Your task to perform on an android device: change your default location settings in chrome Image 0: 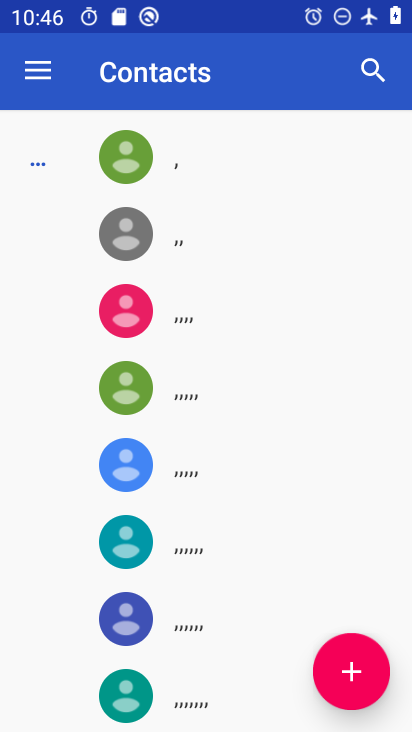
Step 0: press home button
Your task to perform on an android device: change your default location settings in chrome Image 1: 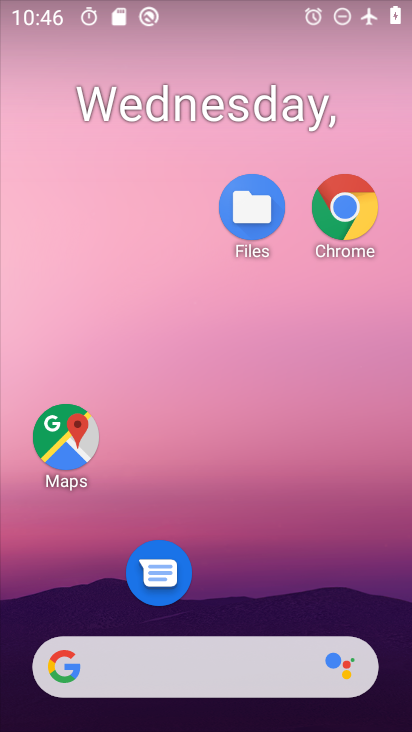
Step 1: drag from (231, 568) to (248, 232)
Your task to perform on an android device: change your default location settings in chrome Image 2: 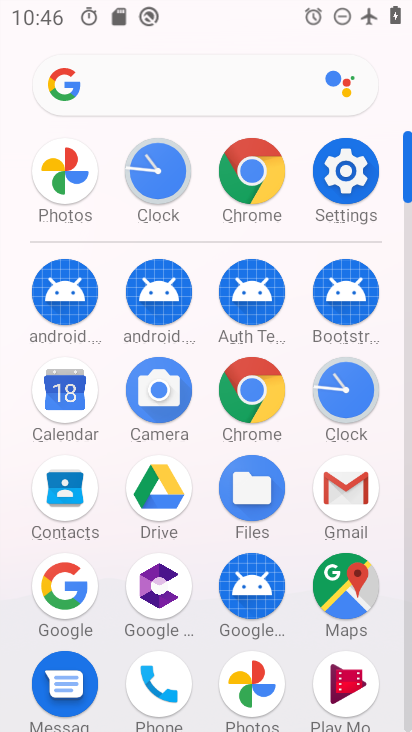
Step 2: click (259, 395)
Your task to perform on an android device: change your default location settings in chrome Image 3: 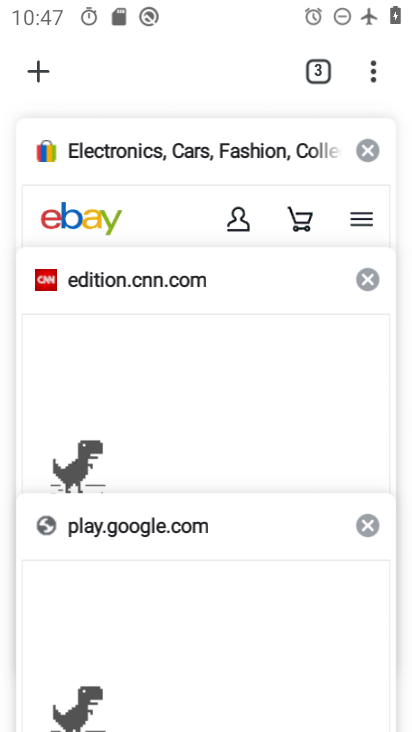
Step 3: click (377, 67)
Your task to perform on an android device: change your default location settings in chrome Image 4: 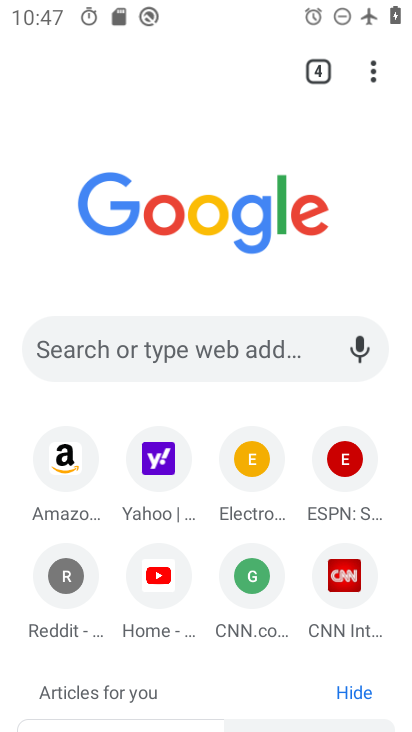
Step 4: click (376, 87)
Your task to perform on an android device: change your default location settings in chrome Image 5: 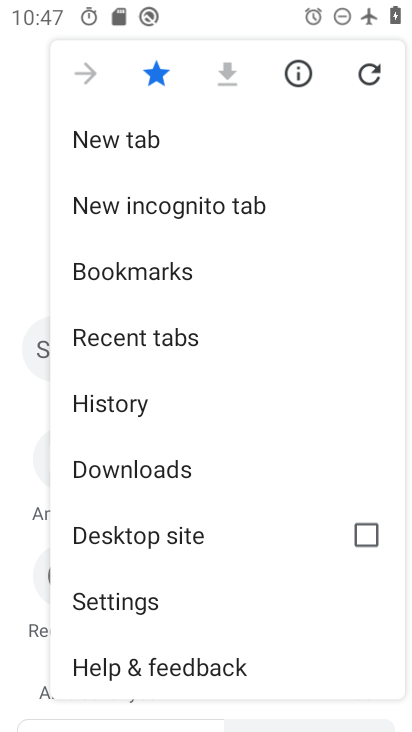
Step 5: drag from (192, 487) to (273, 163)
Your task to perform on an android device: change your default location settings in chrome Image 6: 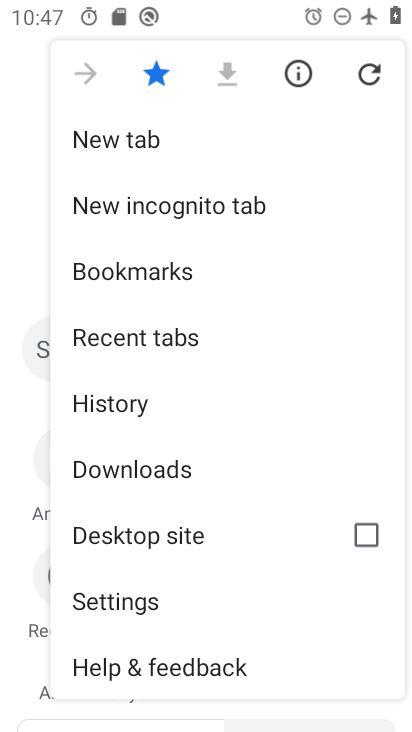
Step 6: click (169, 611)
Your task to perform on an android device: change your default location settings in chrome Image 7: 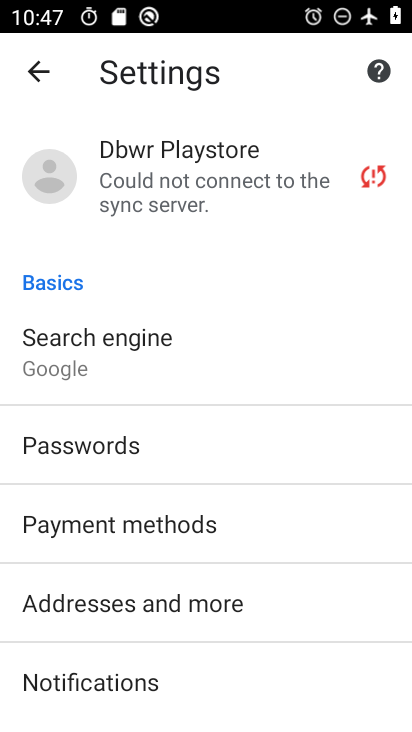
Step 7: drag from (129, 643) to (219, 179)
Your task to perform on an android device: change your default location settings in chrome Image 8: 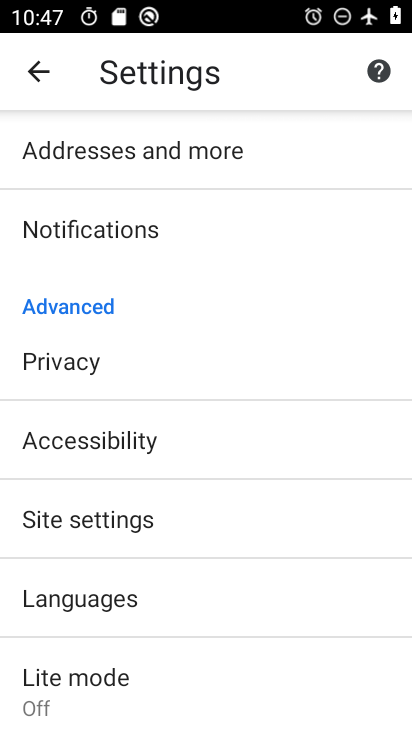
Step 8: click (135, 526)
Your task to perform on an android device: change your default location settings in chrome Image 9: 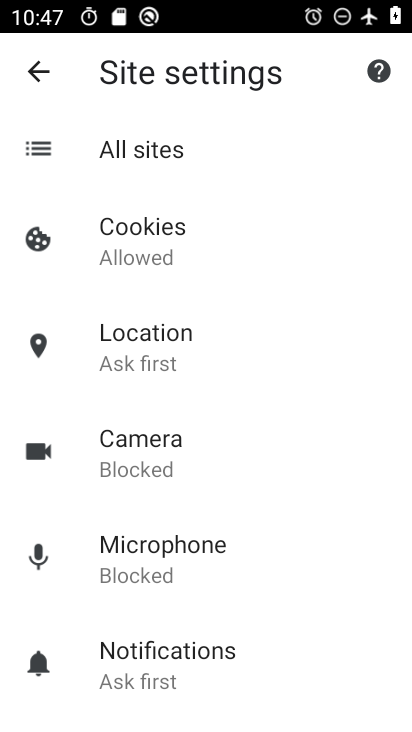
Step 9: click (180, 356)
Your task to perform on an android device: change your default location settings in chrome Image 10: 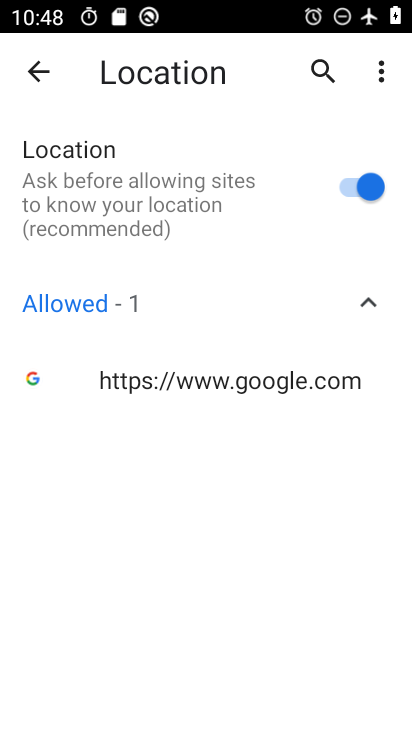
Step 10: click (348, 194)
Your task to perform on an android device: change your default location settings in chrome Image 11: 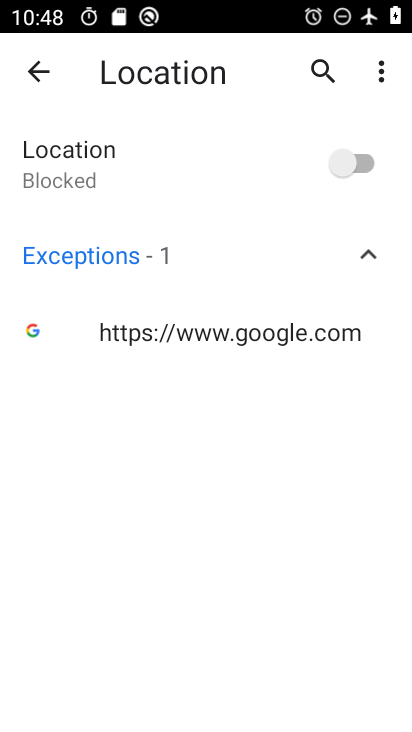
Step 11: task complete